Your task to perform on an android device: add a label to a message in the gmail app Image 0: 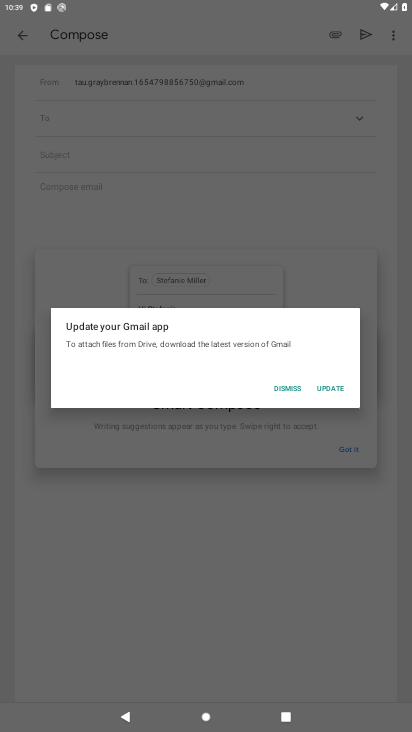
Step 0: click (288, 380)
Your task to perform on an android device: add a label to a message in the gmail app Image 1: 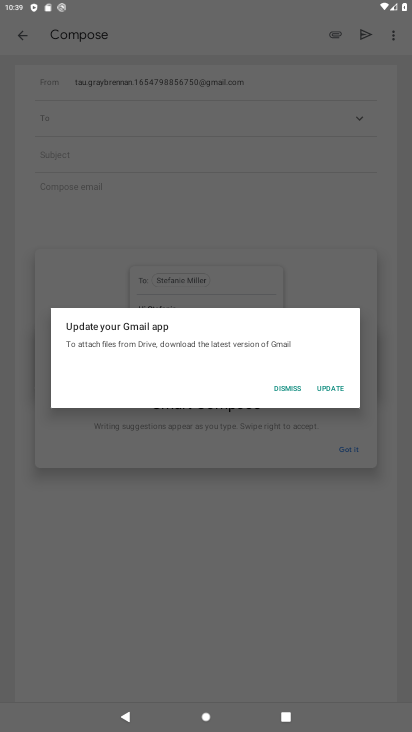
Step 1: click (288, 380)
Your task to perform on an android device: add a label to a message in the gmail app Image 2: 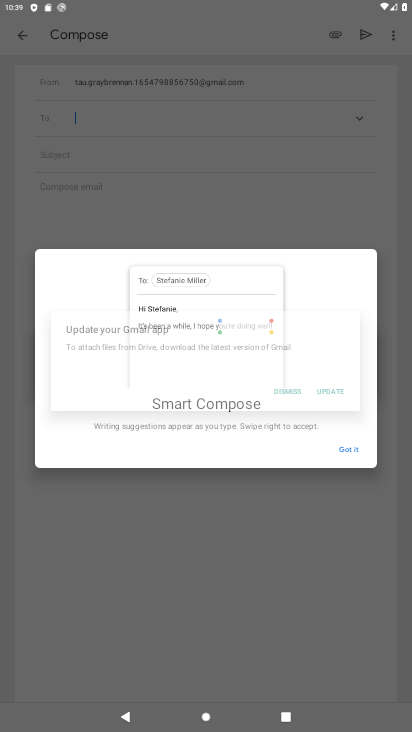
Step 2: click (288, 381)
Your task to perform on an android device: add a label to a message in the gmail app Image 3: 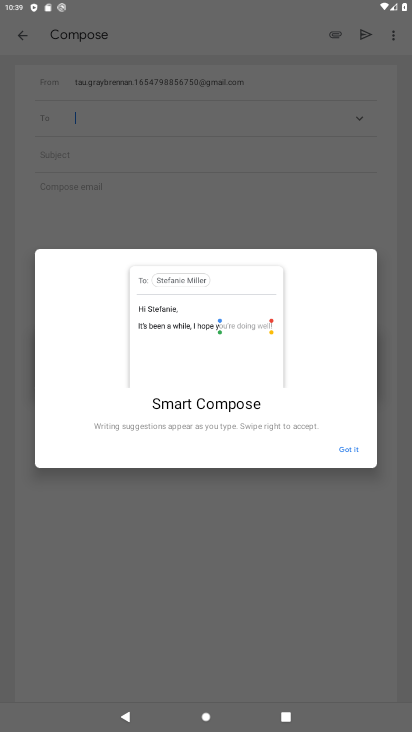
Step 3: click (288, 381)
Your task to perform on an android device: add a label to a message in the gmail app Image 4: 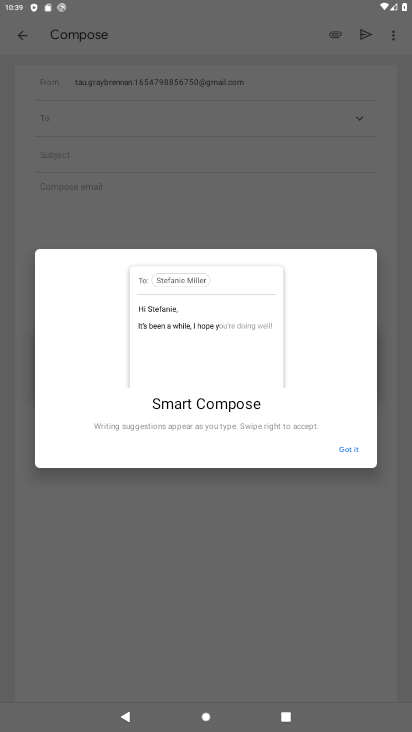
Step 4: click (288, 384)
Your task to perform on an android device: add a label to a message in the gmail app Image 5: 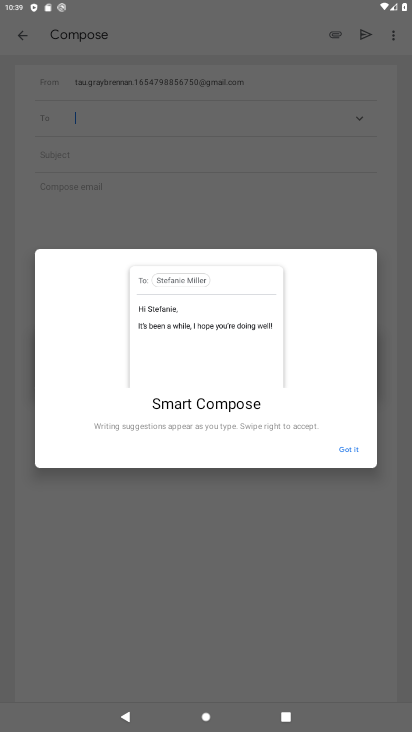
Step 5: click (340, 446)
Your task to perform on an android device: add a label to a message in the gmail app Image 6: 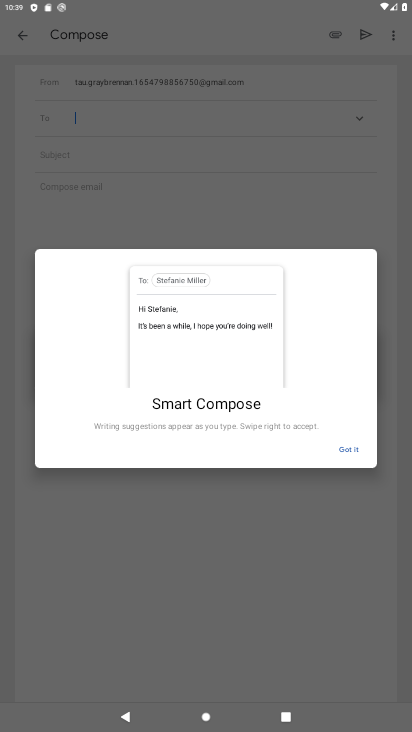
Step 6: click (340, 447)
Your task to perform on an android device: add a label to a message in the gmail app Image 7: 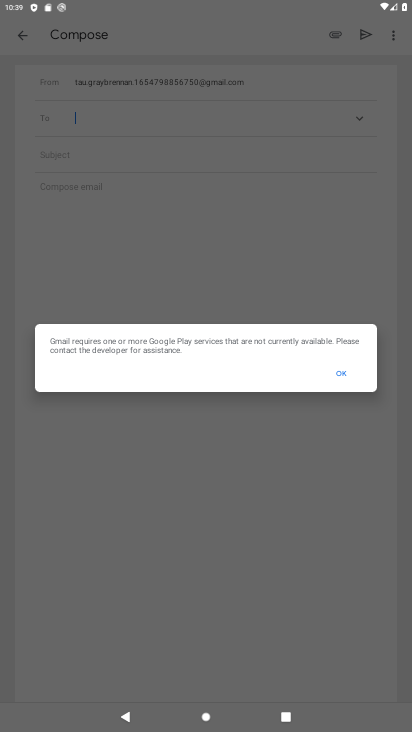
Step 7: click (340, 447)
Your task to perform on an android device: add a label to a message in the gmail app Image 8: 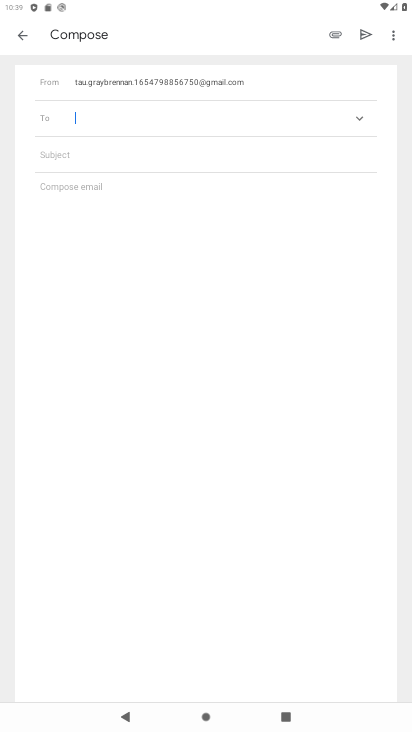
Step 8: click (17, 33)
Your task to perform on an android device: add a label to a message in the gmail app Image 9: 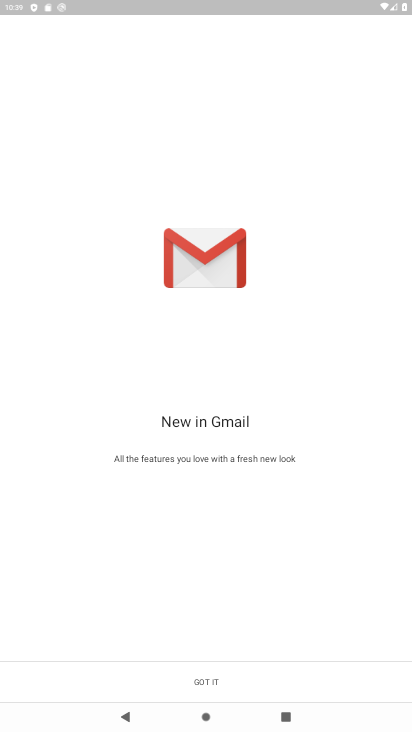
Step 9: click (216, 685)
Your task to perform on an android device: add a label to a message in the gmail app Image 10: 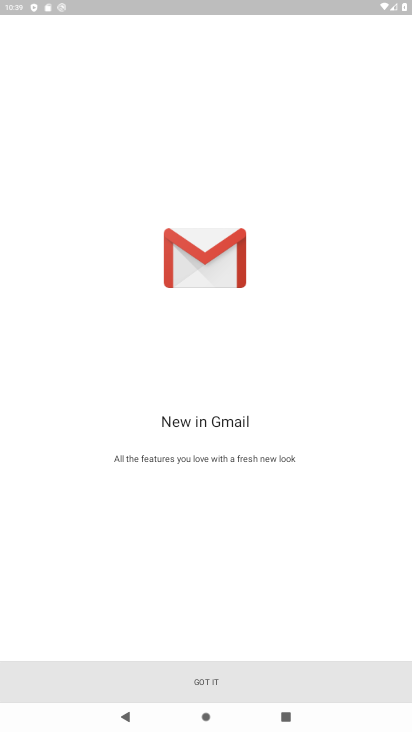
Step 10: click (215, 685)
Your task to perform on an android device: add a label to a message in the gmail app Image 11: 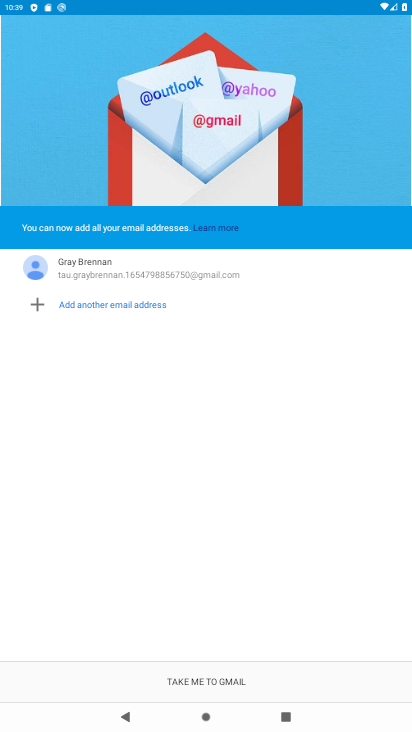
Step 11: click (229, 686)
Your task to perform on an android device: add a label to a message in the gmail app Image 12: 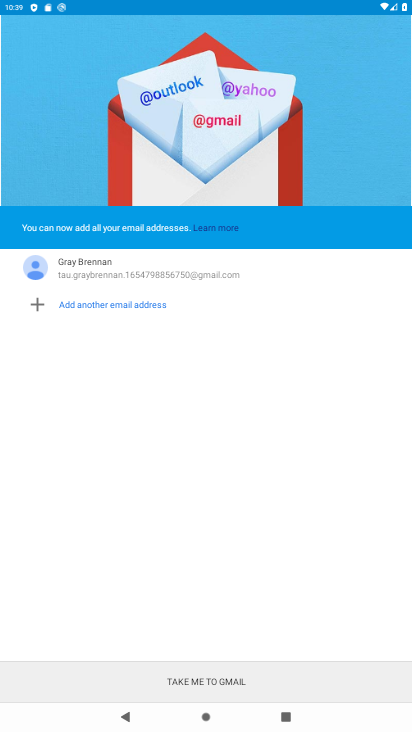
Step 12: click (247, 676)
Your task to perform on an android device: add a label to a message in the gmail app Image 13: 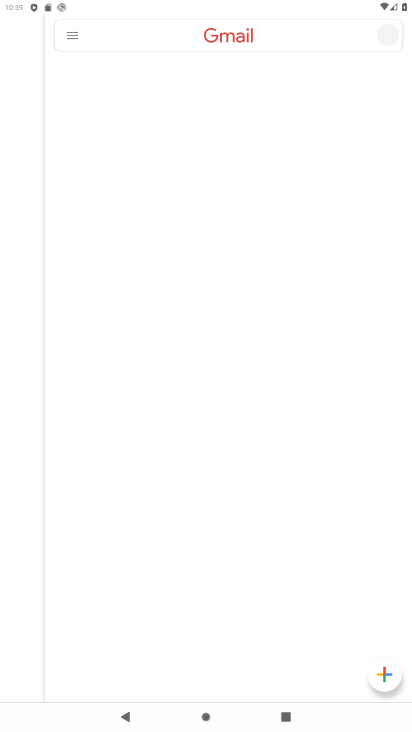
Step 13: click (202, 676)
Your task to perform on an android device: add a label to a message in the gmail app Image 14: 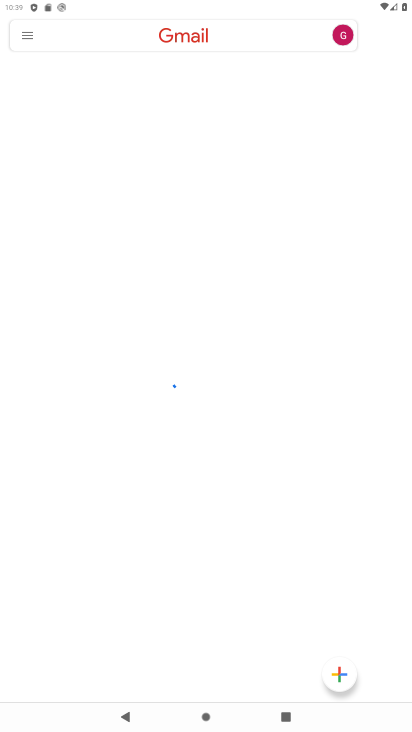
Step 14: click (21, 44)
Your task to perform on an android device: add a label to a message in the gmail app Image 15: 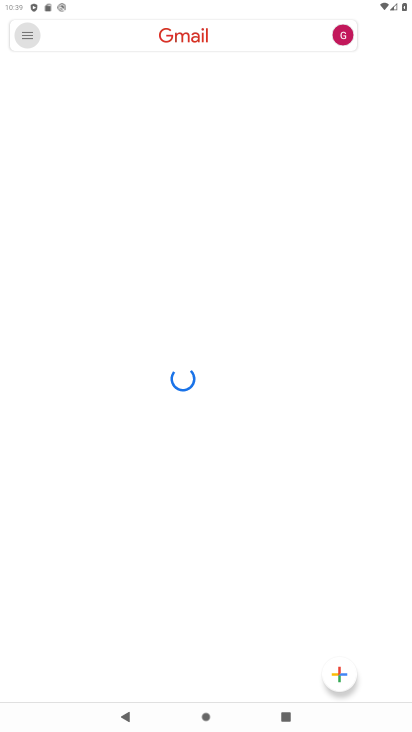
Step 15: click (22, 41)
Your task to perform on an android device: add a label to a message in the gmail app Image 16: 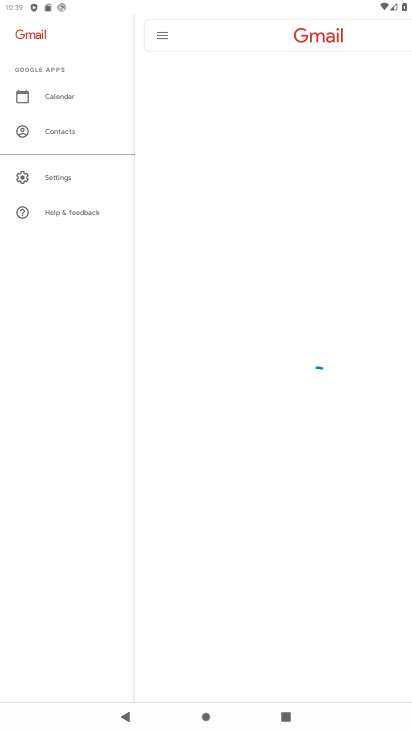
Step 16: click (25, 38)
Your task to perform on an android device: add a label to a message in the gmail app Image 17: 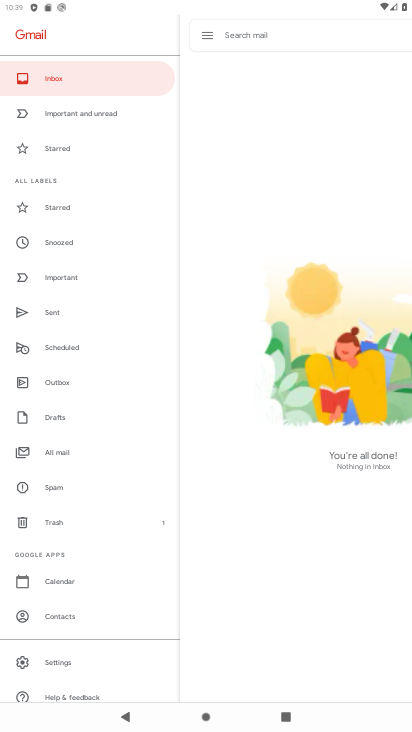
Step 17: click (54, 450)
Your task to perform on an android device: add a label to a message in the gmail app Image 18: 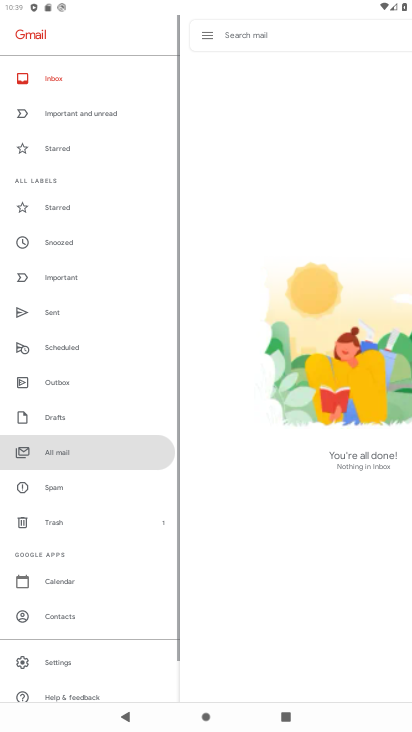
Step 18: click (53, 450)
Your task to perform on an android device: add a label to a message in the gmail app Image 19: 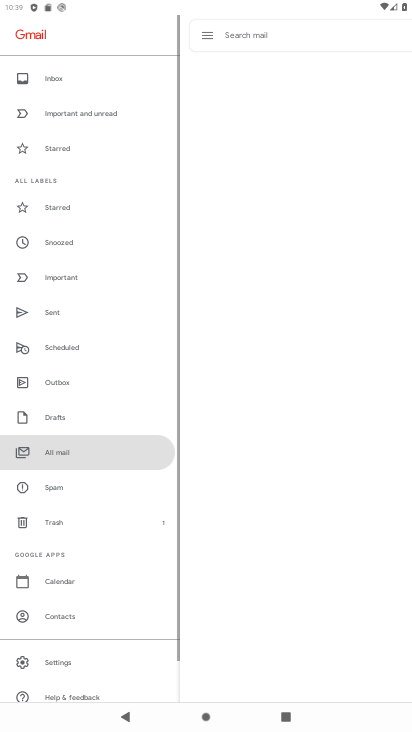
Step 19: click (54, 451)
Your task to perform on an android device: add a label to a message in the gmail app Image 20: 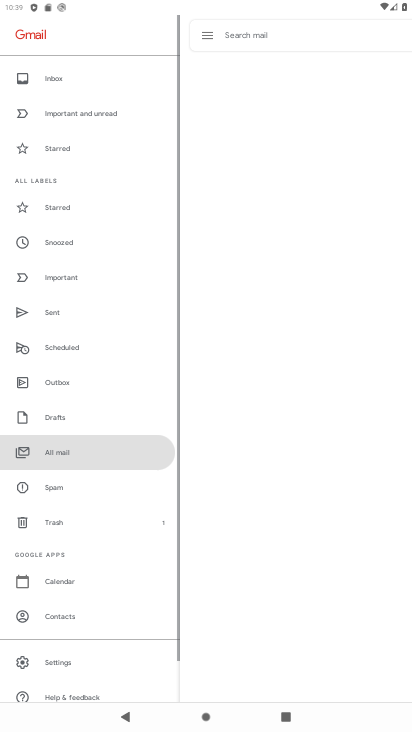
Step 20: click (55, 452)
Your task to perform on an android device: add a label to a message in the gmail app Image 21: 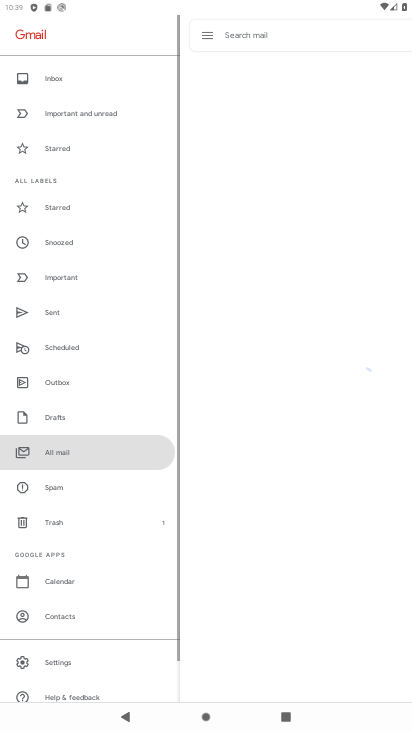
Step 21: click (58, 454)
Your task to perform on an android device: add a label to a message in the gmail app Image 22: 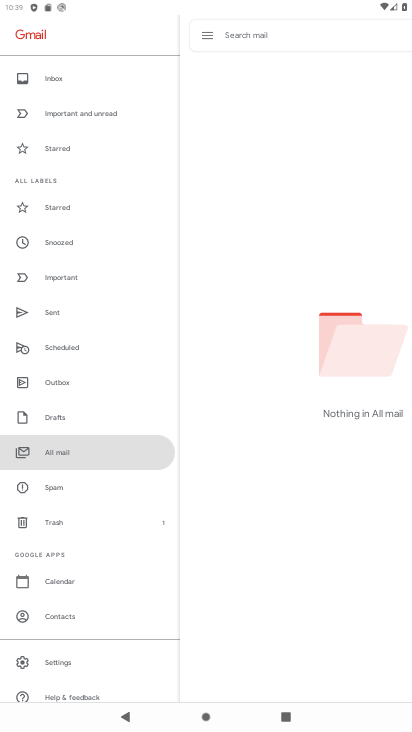
Step 22: task complete